Your task to perform on an android device: Go to ESPN.com Image 0: 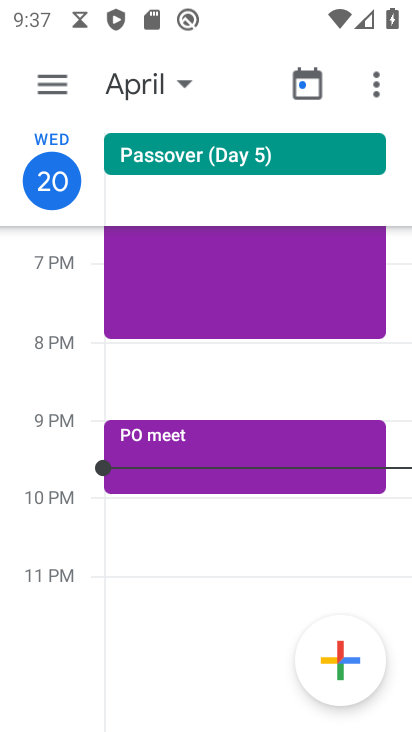
Step 0: press home button
Your task to perform on an android device: Go to ESPN.com Image 1: 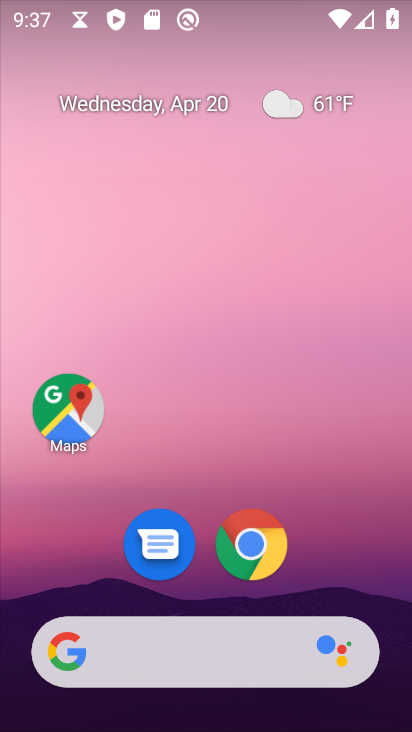
Step 1: drag from (221, 649) to (335, 174)
Your task to perform on an android device: Go to ESPN.com Image 2: 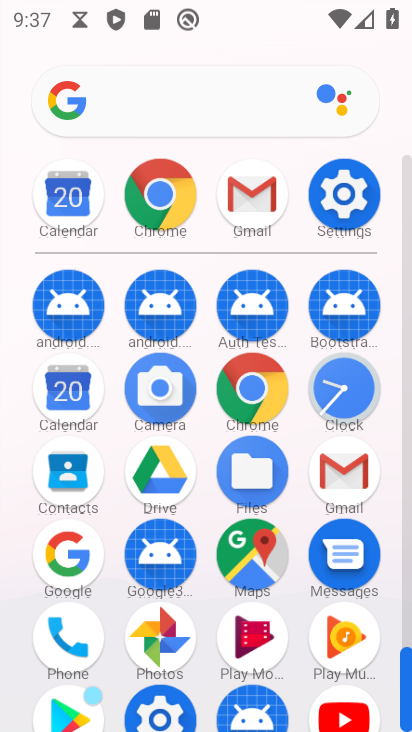
Step 2: click (166, 198)
Your task to perform on an android device: Go to ESPN.com Image 3: 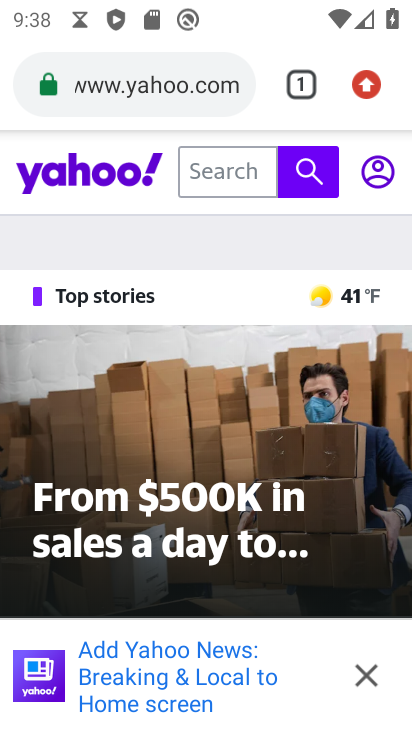
Step 3: click (365, 105)
Your task to perform on an android device: Go to ESPN.com Image 4: 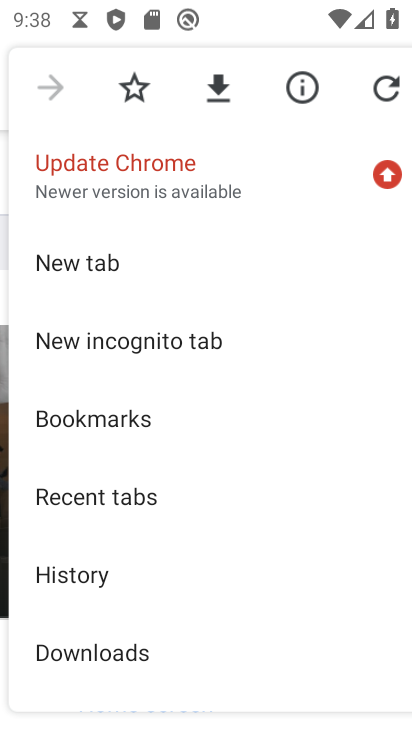
Step 4: click (97, 261)
Your task to perform on an android device: Go to ESPN.com Image 5: 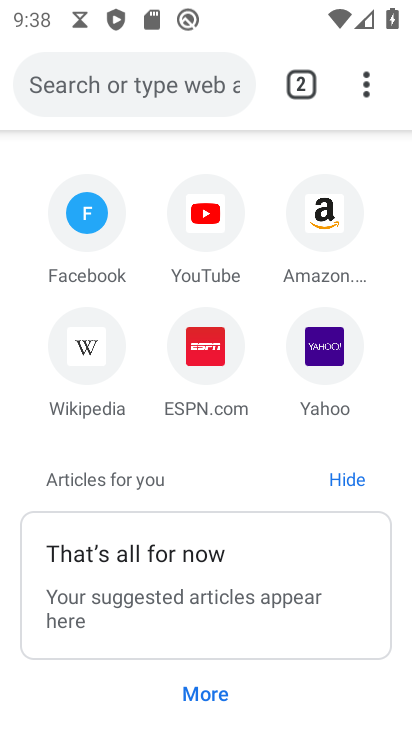
Step 5: click (211, 356)
Your task to perform on an android device: Go to ESPN.com Image 6: 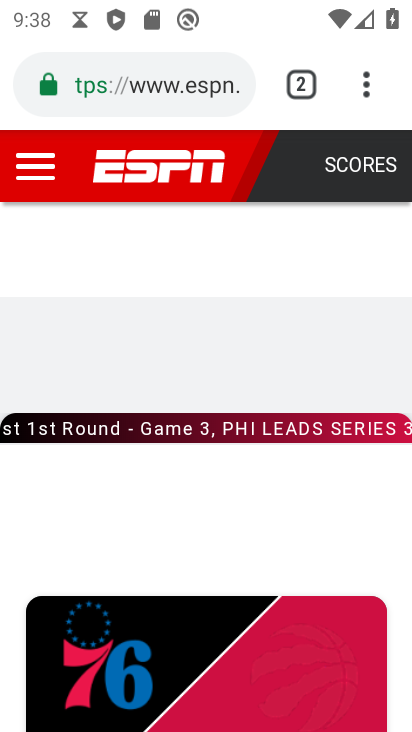
Step 6: task complete